Your task to perform on an android device: Open Google Chrome Image 0: 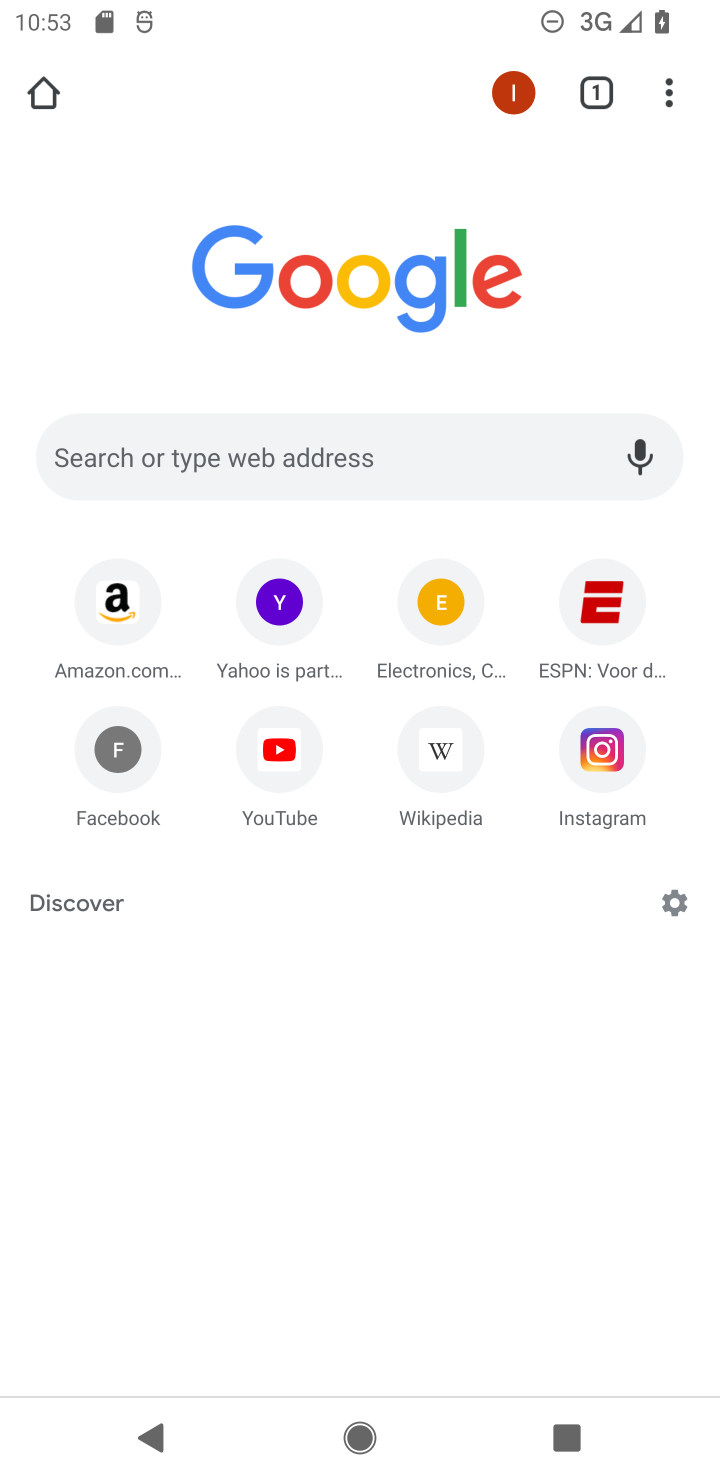
Step 0: press home button
Your task to perform on an android device: Open Google Chrome Image 1: 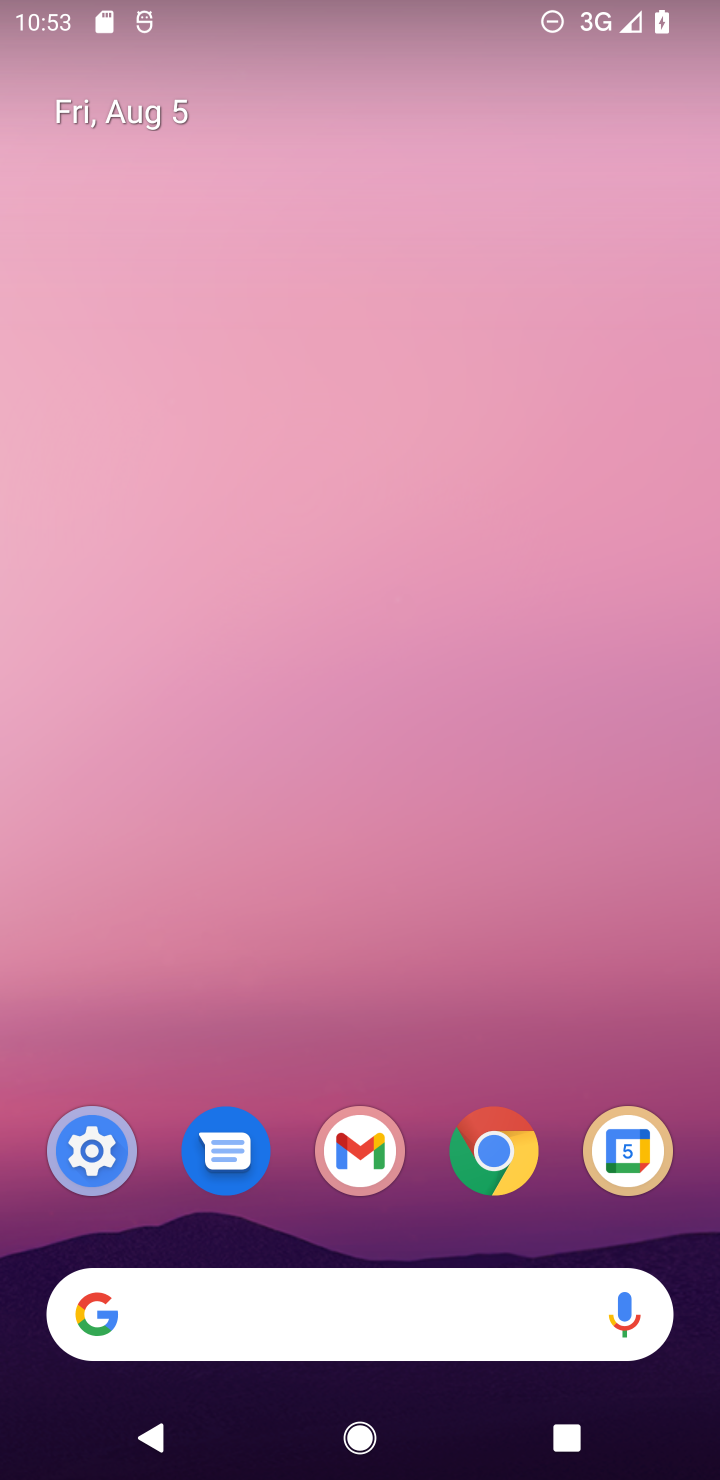
Step 1: click (501, 1158)
Your task to perform on an android device: Open Google Chrome Image 2: 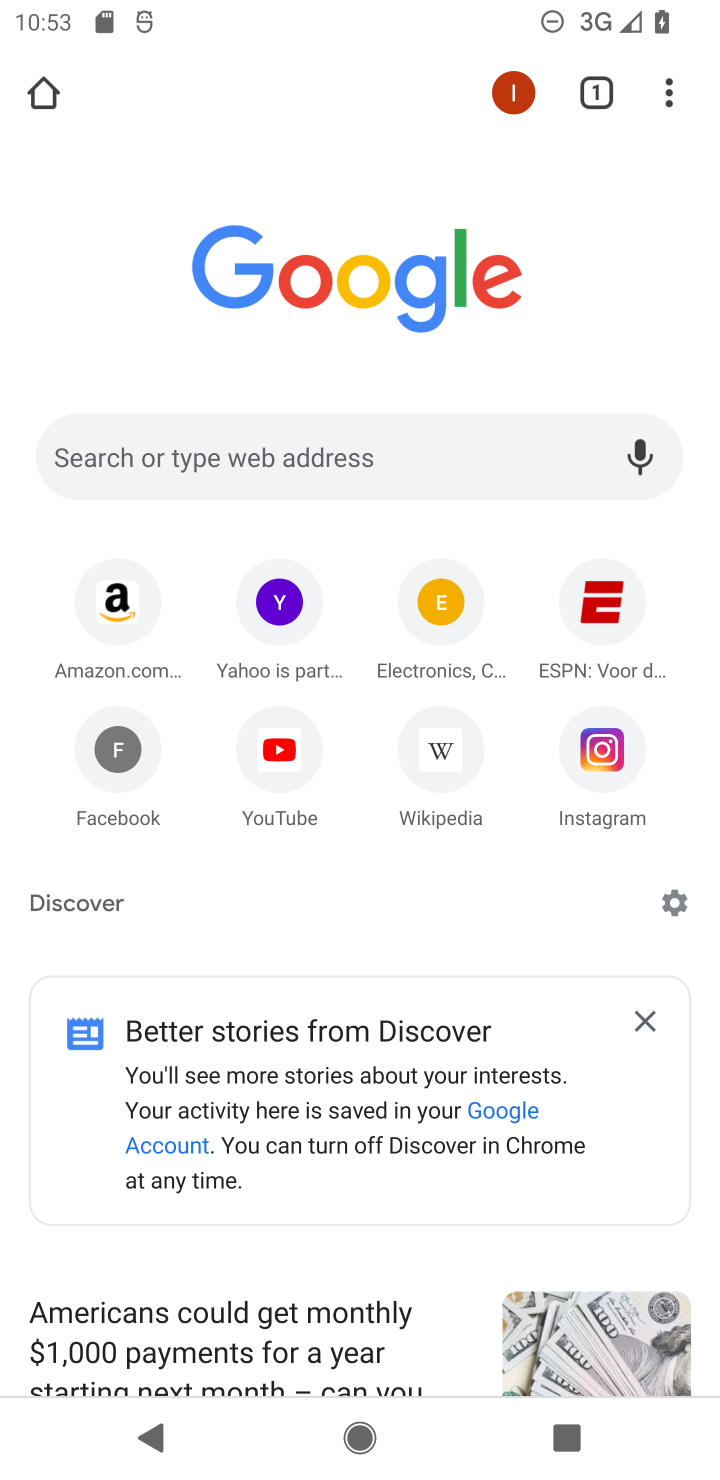
Step 2: task complete